Your task to perform on an android device: Play the last video I watched on Youtube Image 0: 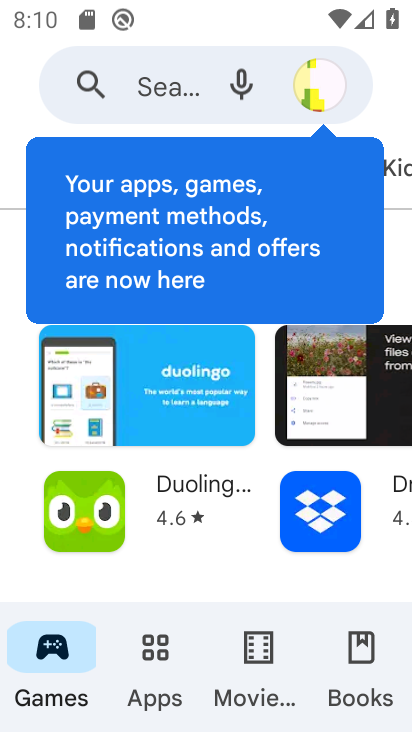
Step 0: press home button
Your task to perform on an android device: Play the last video I watched on Youtube Image 1: 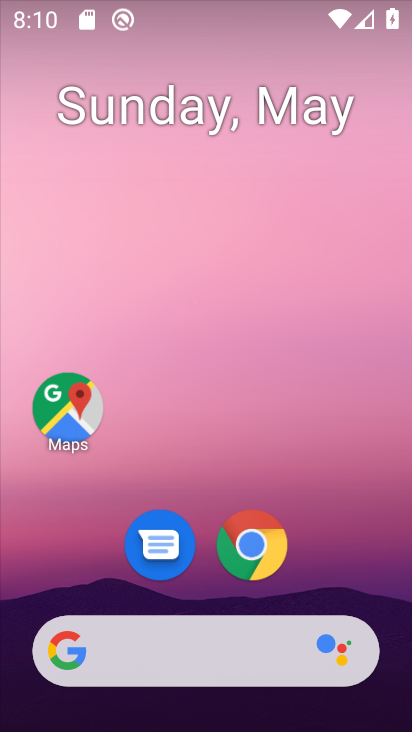
Step 1: drag from (174, 596) to (231, 126)
Your task to perform on an android device: Play the last video I watched on Youtube Image 2: 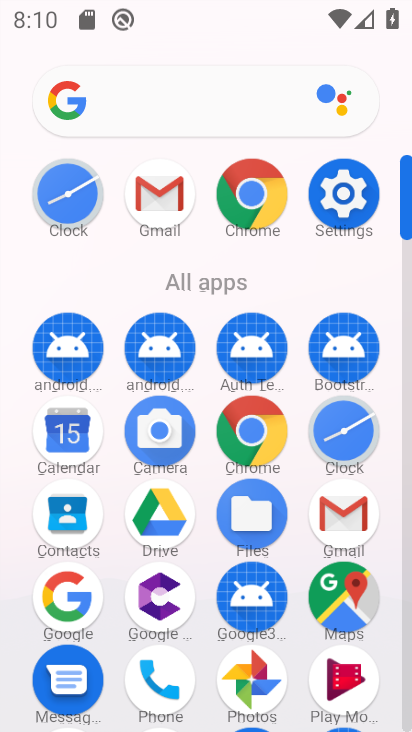
Step 2: drag from (231, 543) to (324, 187)
Your task to perform on an android device: Play the last video I watched on Youtube Image 3: 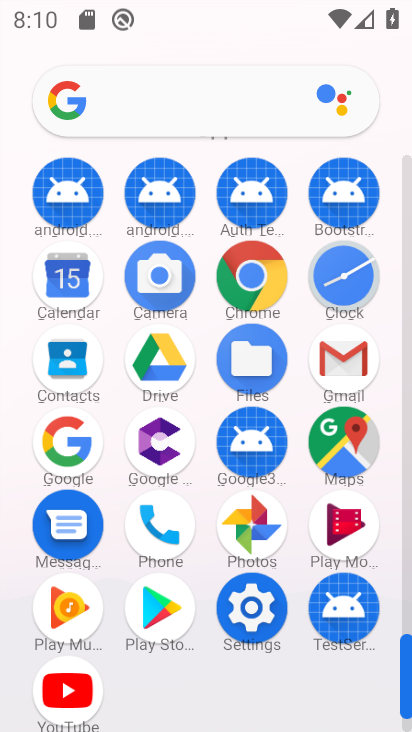
Step 3: click (43, 696)
Your task to perform on an android device: Play the last video I watched on Youtube Image 4: 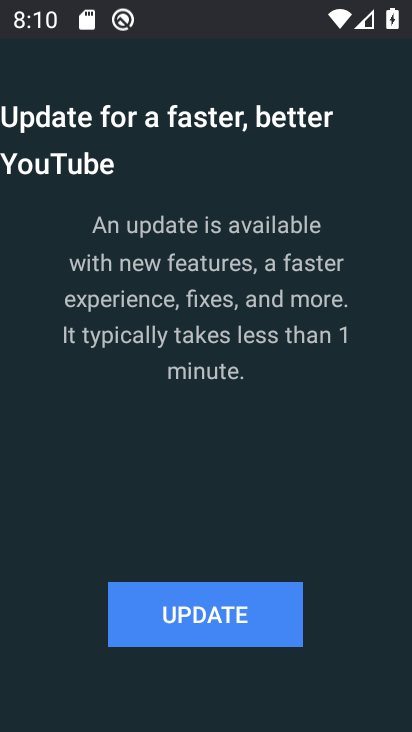
Step 4: click (224, 628)
Your task to perform on an android device: Play the last video I watched on Youtube Image 5: 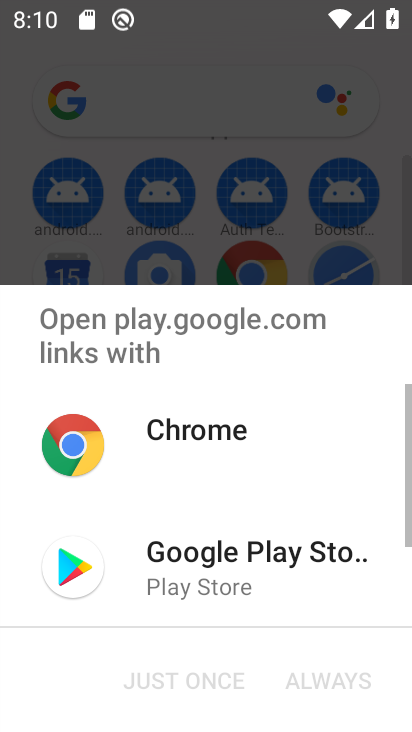
Step 5: click (229, 592)
Your task to perform on an android device: Play the last video I watched on Youtube Image 6: 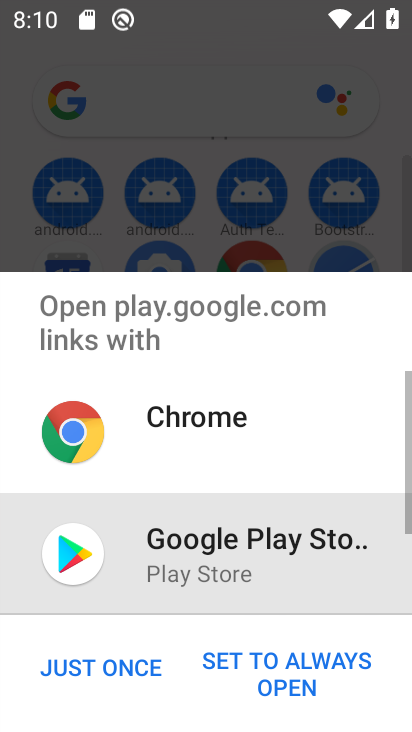
Step 6: click (132, 667)
Your task to perform on an android device: Play the last video I watched on Youtube Image 7: 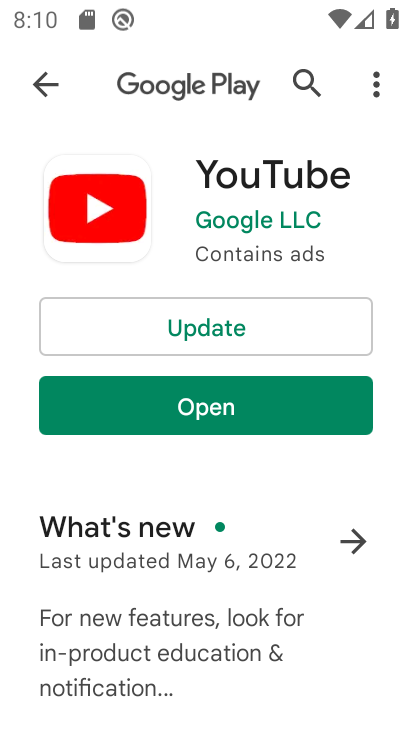
Step 7: click (247, 320)
Your task to perform on an android device: Play the last video I watched on Youtube Image 8: 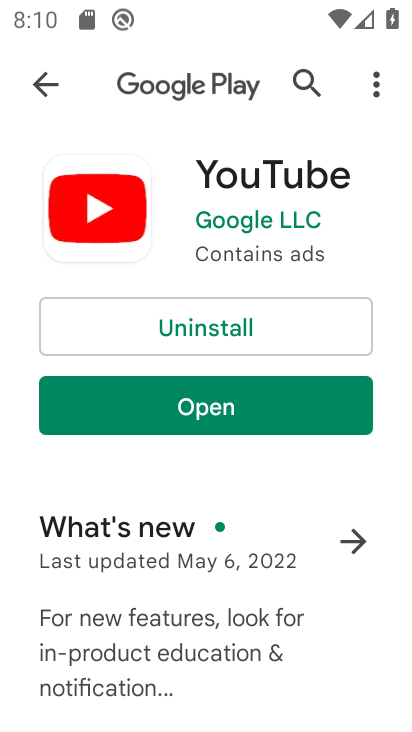
Step 8: click (230, 419)
Your task to perform on an android device: Play the last video I watched on Youtube Image 9: 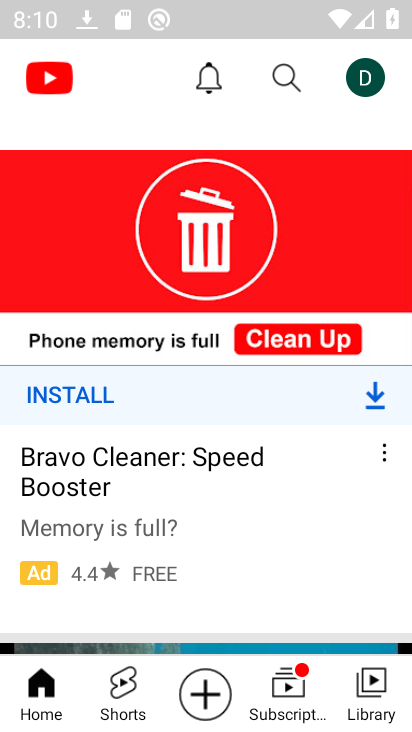
Step 9: click (366, 694)
Your task to perform on an android device: Play the last video I watched on Youtube Image 10: 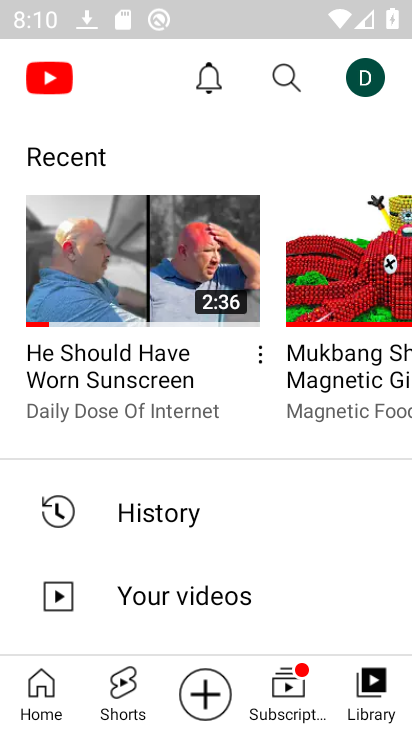
Step 10: click (155, 264)
Your task to perform on an android device: Play the last video I watched on Youtube Image 11: 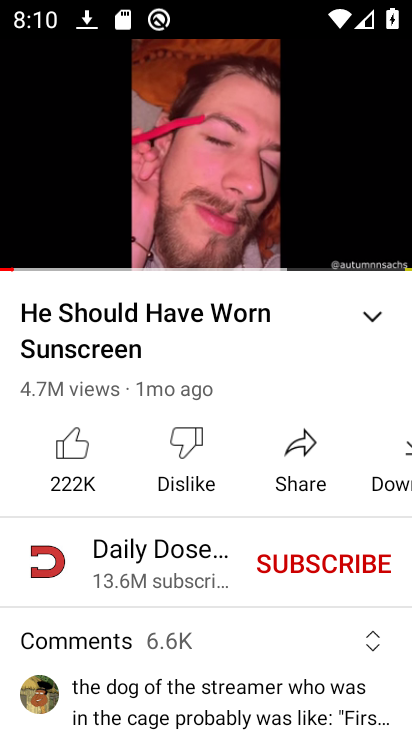
Step 11: task complete